Your task to perform on an android device: set default search engine in the chrome app Image 0: 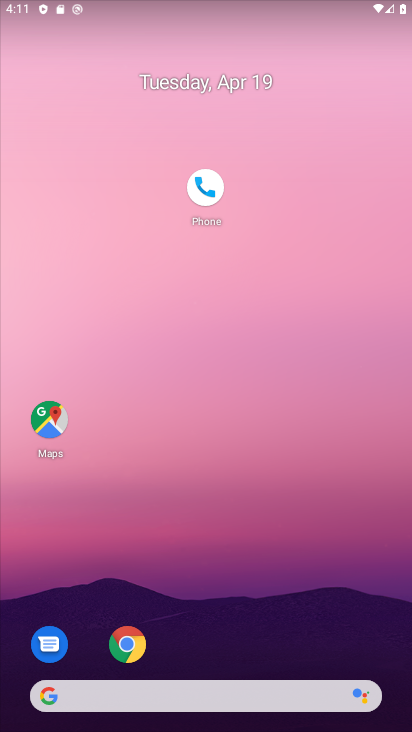
Step 0: drag from (96, 215) to (228, 105)
Your task to perform on an android device: set default search engine in the chrome app Image 1: 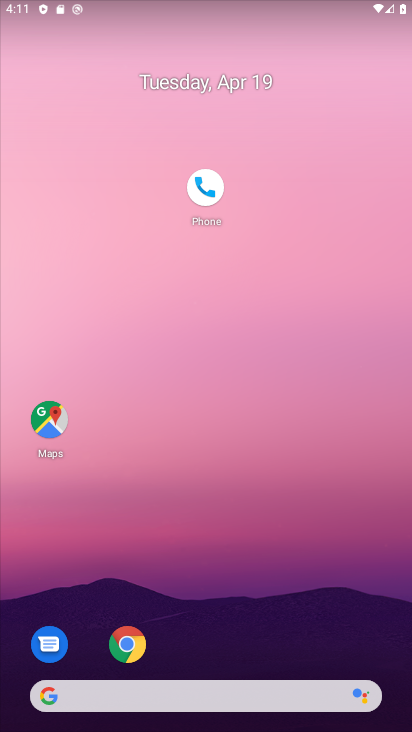
Step 1: click (229, 104)
Your task to perform on an android device: set default search engine in the chrome app Image 2: 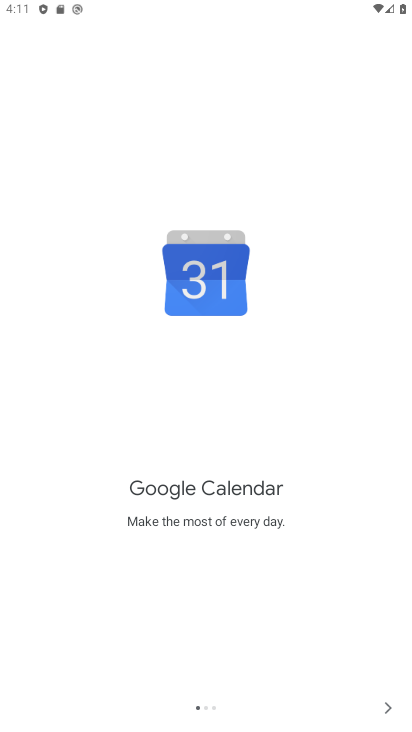
Step 2: press home button
Your task to perform on an android device: set default search engine in the chrome app Image 3: 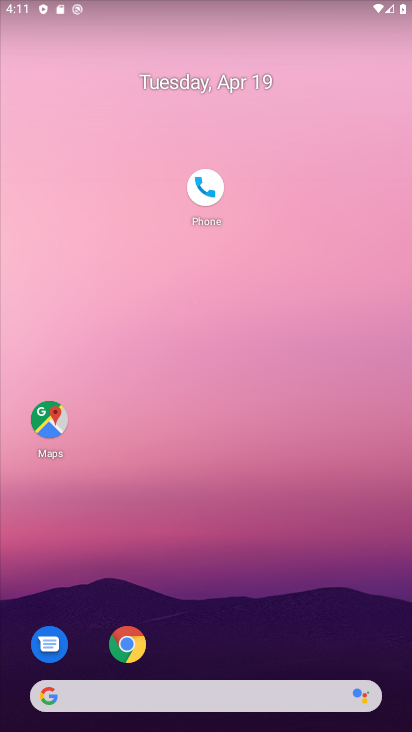
Step 3: press home button
Your task to perform on an android device: set default search engine in the chrome app Image 4: 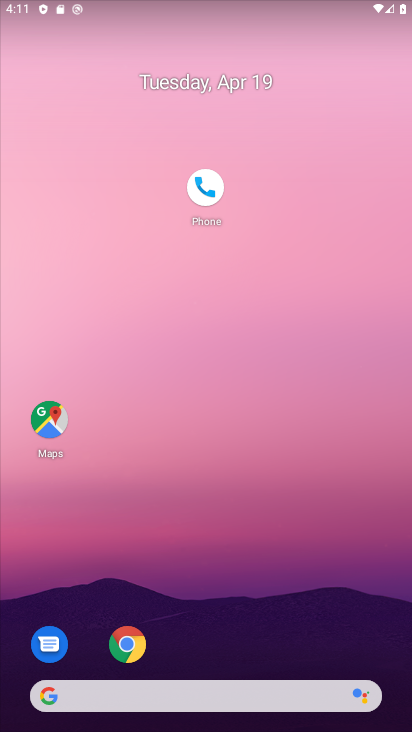
Step 4: click (111, 646)
Your task to perform on an android device: set default search engine in the chrome app Image 5: 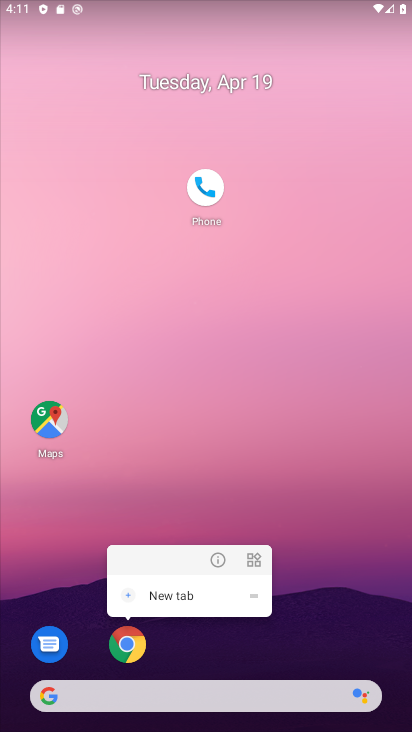
Step 5: click (121, 648)
Your task to perform on an android device: set default search engine in the chrome app Image 6: 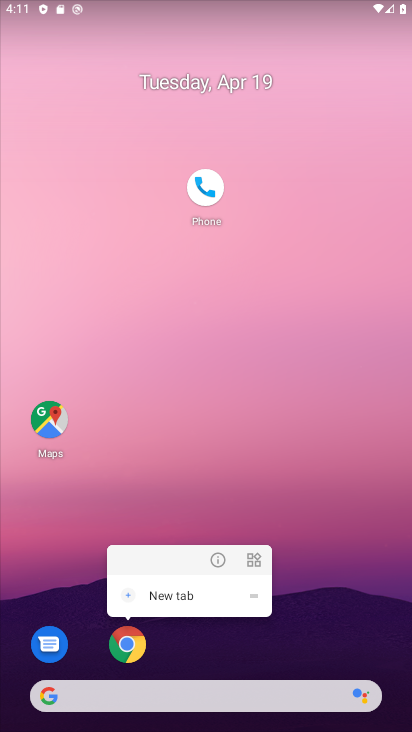
Step 6: click (121, 648)
Your task to perform on an android device: set default search engine in the chrome app Image 7: 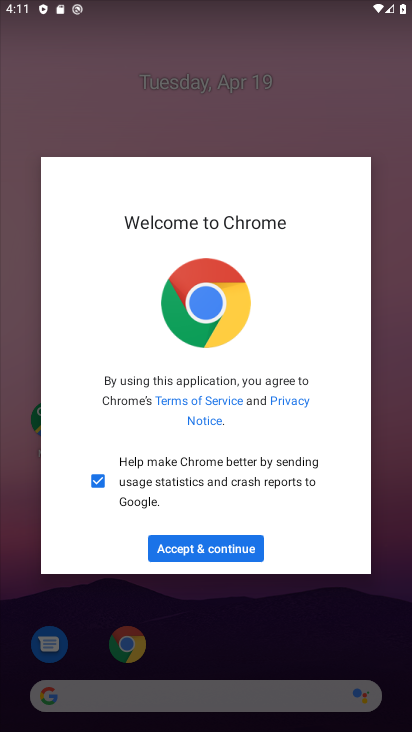
Step 7: click (204, 553)
Your task to perform on an android device: set default search engine in the chrome app Image 8: 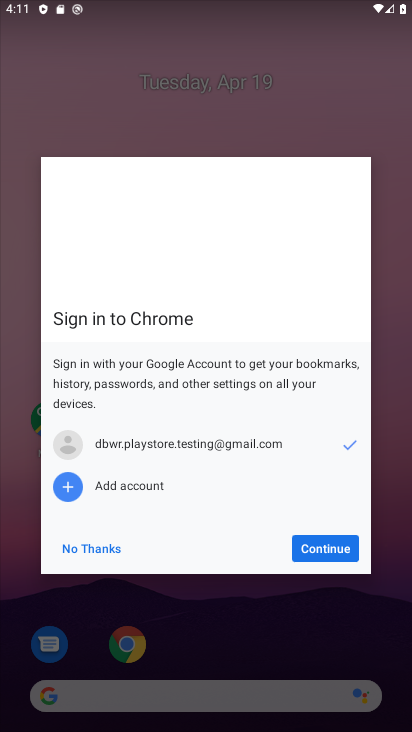
Step 8: click (211, 548)
Your task to perform on an android device: set default search engine in the chrome app Image 9: 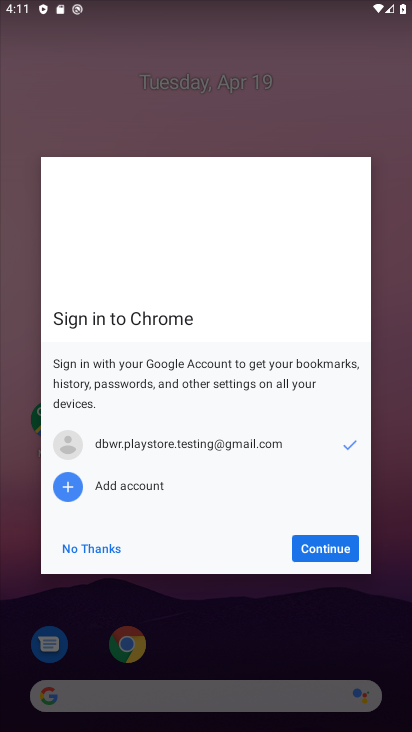
Step 9: click (316, 551)
Your task to perform on an android device: set default search engine in the chrome app Image 10: 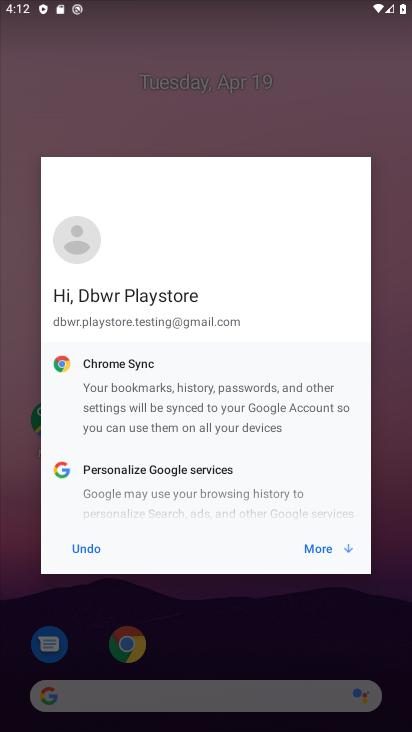
Step 10: click (321, 549)
Your task to perform on an android device: set default search engine in the chrome app Image 11: 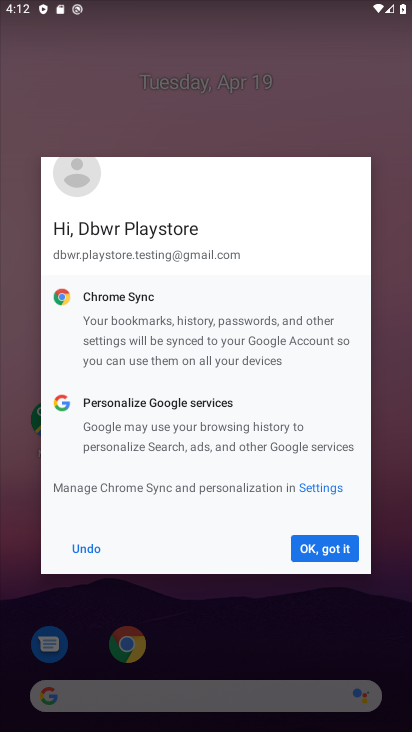
Step 11: click (321, 549)
Your task to perform on an android device: set default search engine in the chrome app Image 12: 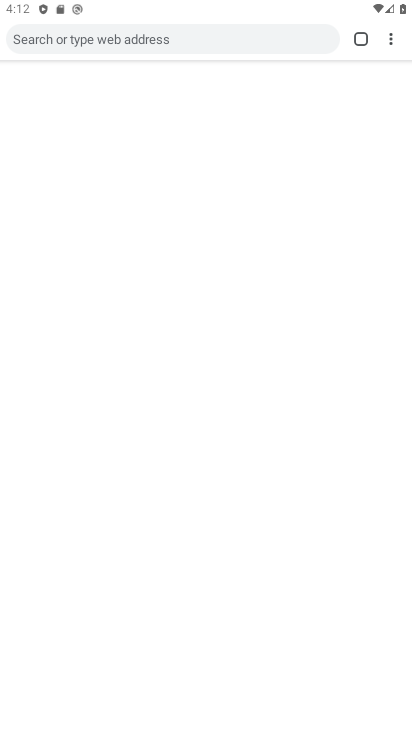
Step 12: click (321, 549)
Your task to perform on an android device: set default search engine in the chrome app Image 13: 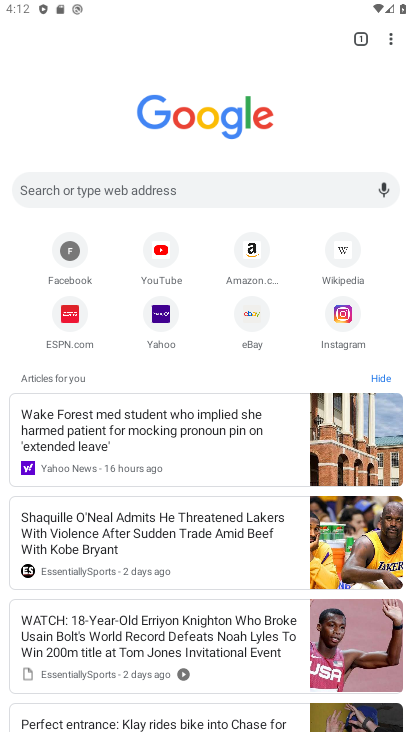
Step 13: click (389, 37)
Your task to perform on an android device: set default search engine in the chrome app Image 14: 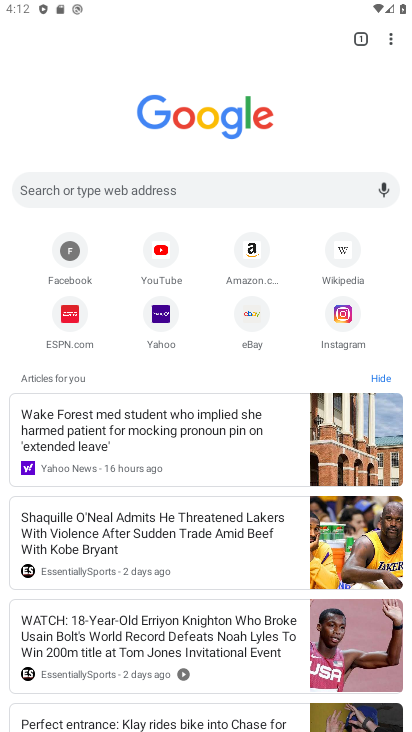
Step 14: click (389, 37)
Your task to perform on an android device: set default search engine in the chrome app Image 15: 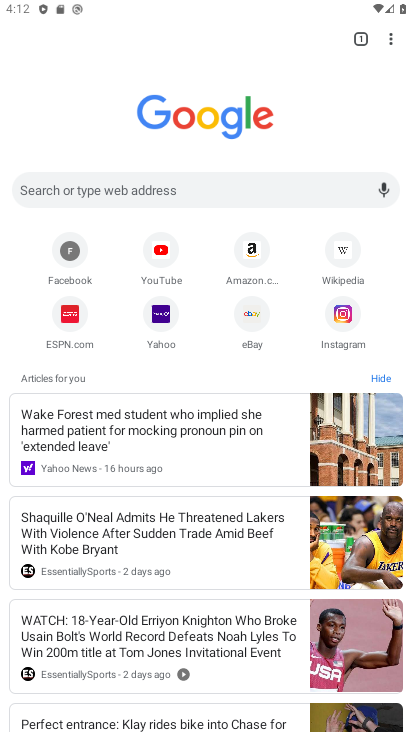
Step 15: click (389, 37)
Your task to perform on an android device: set default search engine in the chrome app Image 16: 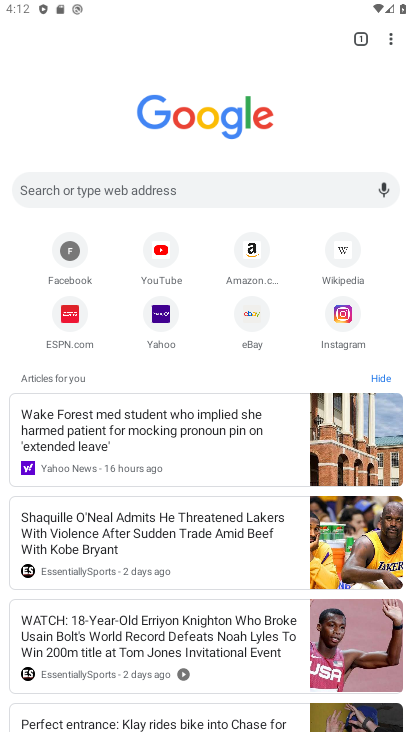
Step 16: click (389, 37)
Your task to perform on an android device: set default search engine in the chrome app Image 17: 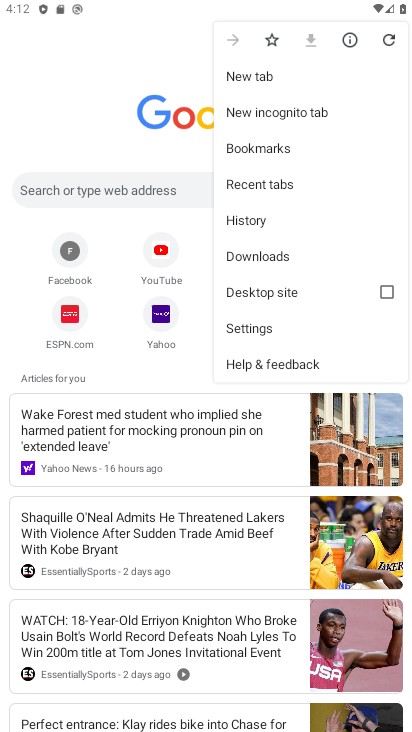
Step 17: click (253, 326)
Your task to perform on an android device: set default search engine in the chrome app Image 18: 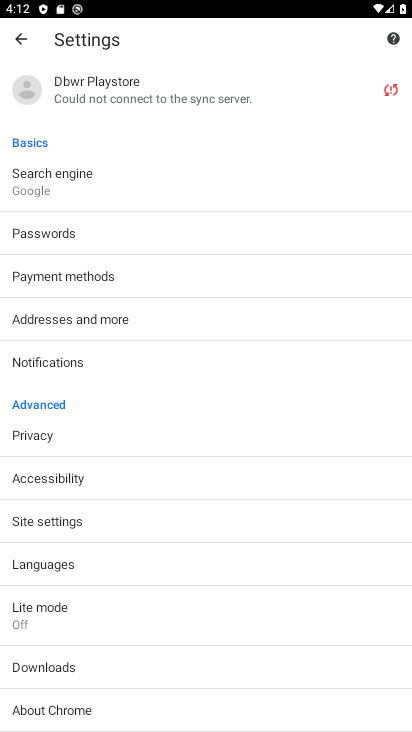
Step 18: click (57, 178)
Your task to perform on an android device: set default search engine in the chrome app Image 19: 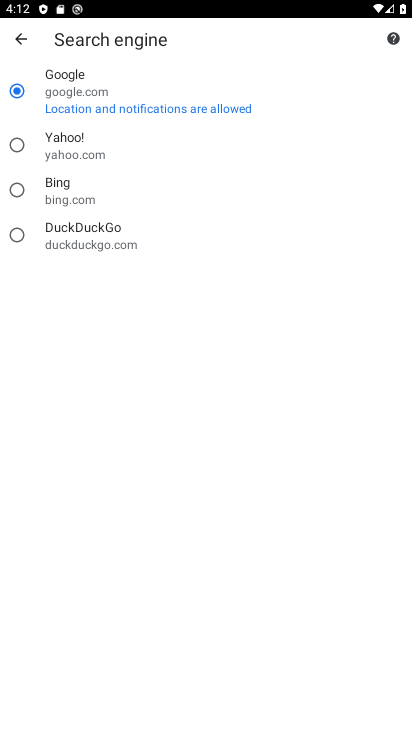
Step 19: task complete